Your task to perform on an android device: read, delete, or share a saved page in the chrome app Image 0: 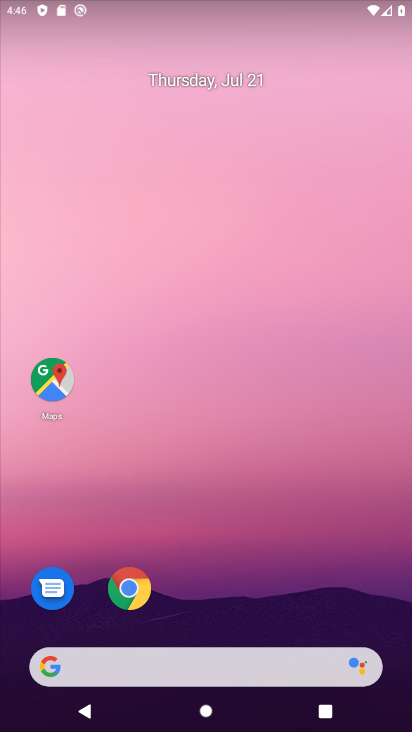
Step 0: drag from (313, 597) to (230, 55)
Your task to perform on an android device: read, delete, or share a saved page in the chrome app Image 1: 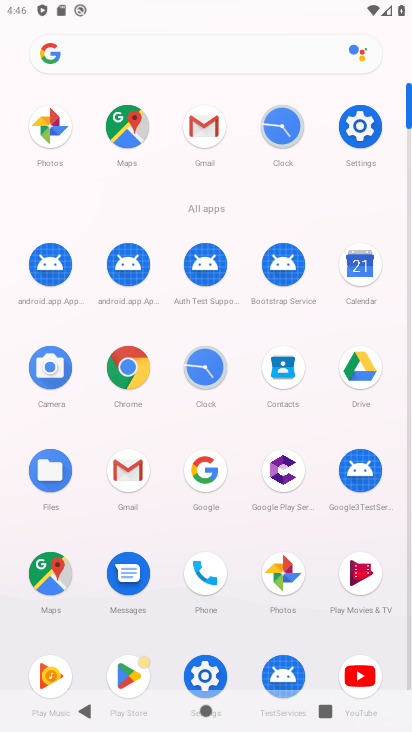
Step 1: click (138, 380)
Your task to perform on an android device: read, delete, or share a saved page in the chrome app Image 2: 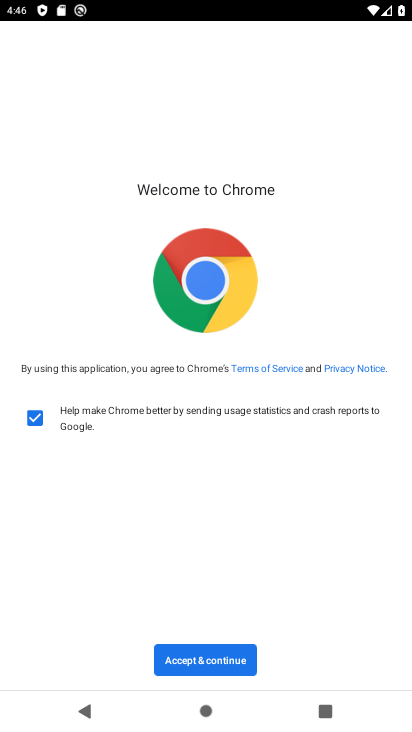
Step 2: click (225, 659)
Your task to perform on an android device: read, delete, or share a saved page in the chrome app Image 3: 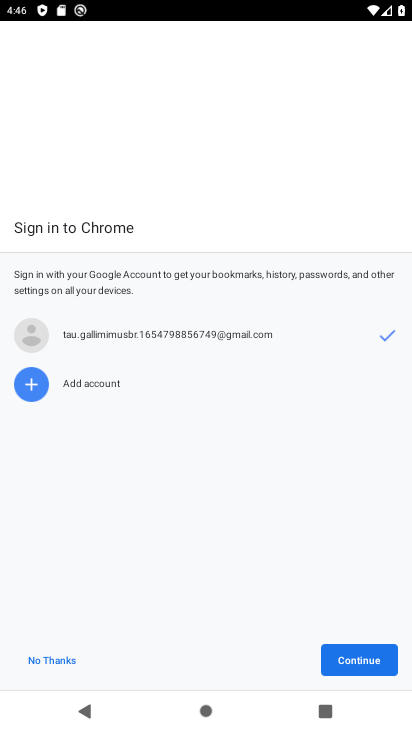
Step 3: click (375, 654)
Your task to perform on an android device: read, delete, or share a saved page in the chrome app Image 4: 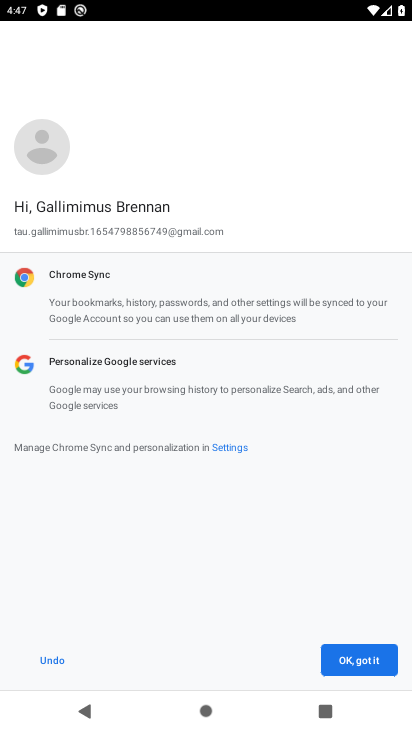
Step 4: click (390, 656)
Your task to perform on an android device: read, delete, or share a saved page in the chrome app Image 5: 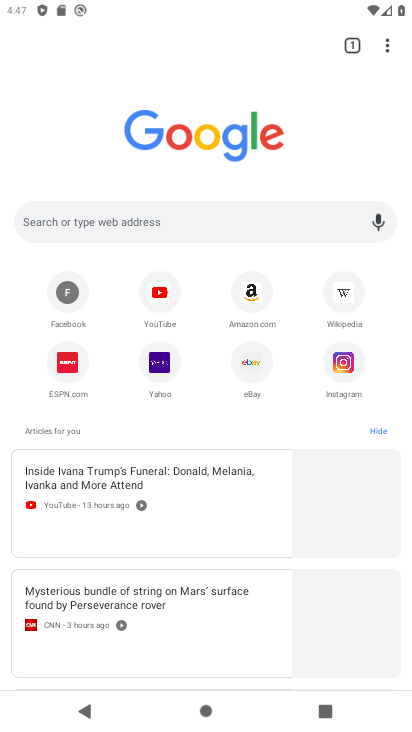
Step 5: click (390, 50)
Your task to perform on an android device: read, delete, or share a saved page in the chrome app Image 6: 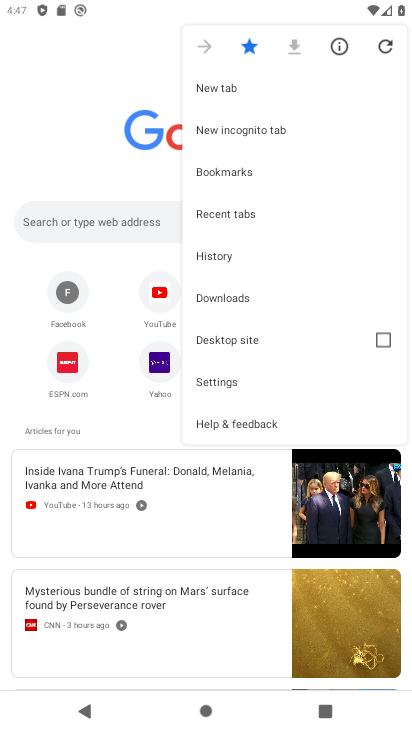
Step 6: click (271, 299)
Your task to perform on an android device: read, delete, or share a saved page in the chrome app Image 7: 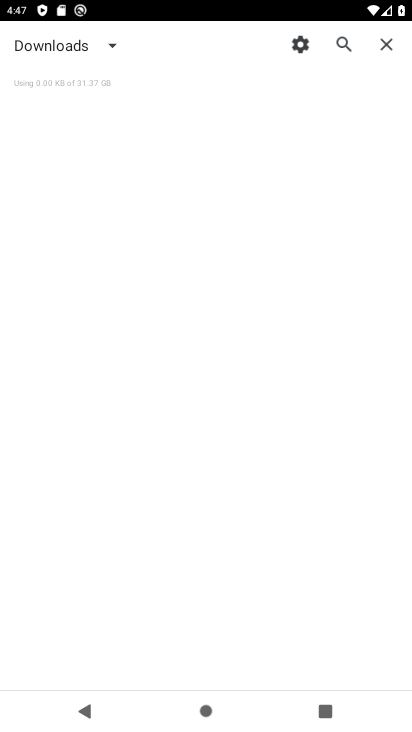
Step 7: click (94, 55)
Your task to perform on an android device: read, delete, or share a saved page in the chrome app Image 8: 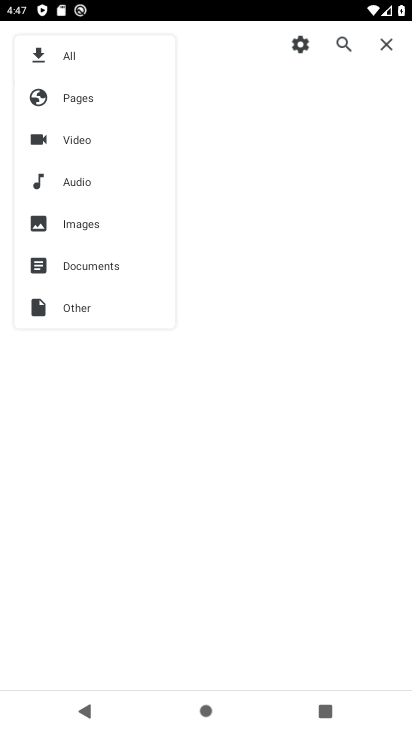
Step 8: click (91, 102)
Your task to perform on an android device: read, delete, or share a saved page in the chrome app Image 9: 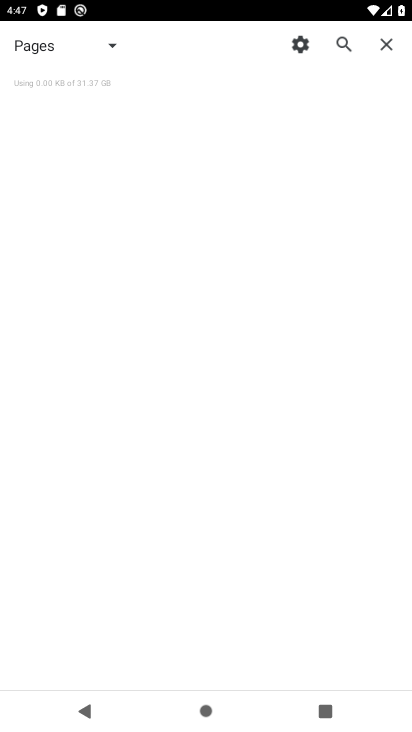
Step 9: task complete